Your task to perform on an android device: turn notification dots off Image 0: 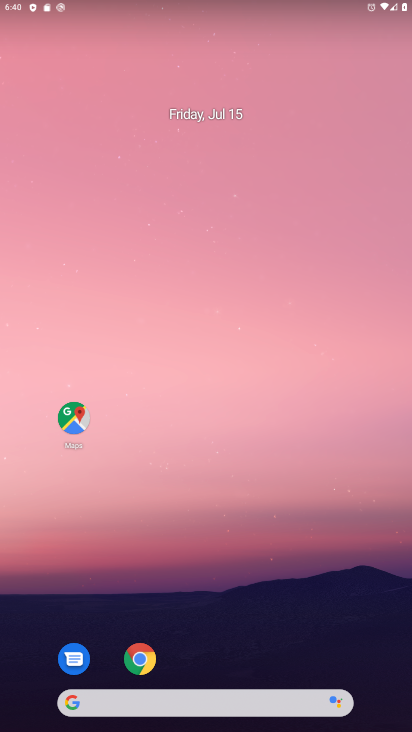
Step 0: drag from (376, 663) to (321, 102)
Your task to perform on an android device: turn notification dots off Image 1: 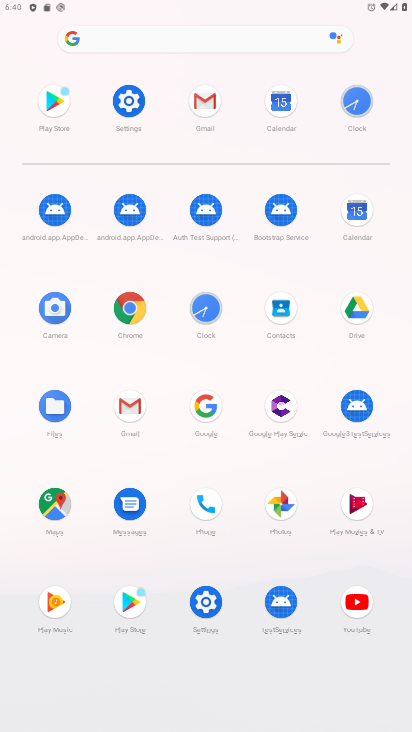
Step 1: click (206, 601)
Your task to perform on an android device: turn notification dots off Image 2: 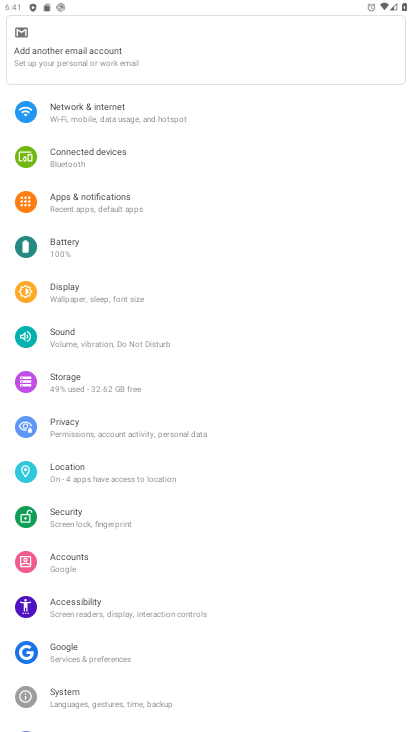
Step 2: click (86, 191)
Your task to perform on an android device: turn notification dots off Image 3: 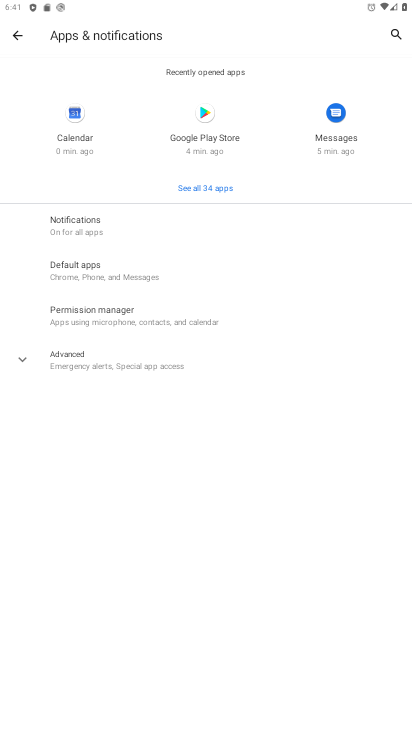
Step 3: click (73, 216)
Your task to perform on an android device: turn notification dots off Image 4: 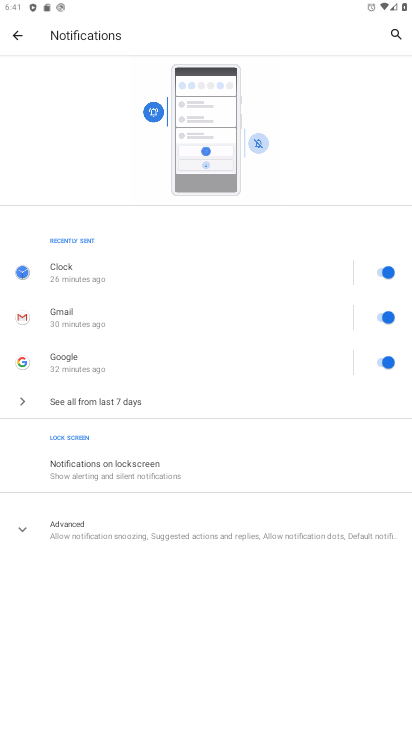
Step 4: click (37, 524)
Your task to perform on an android device: turn notification dots off Image 5: 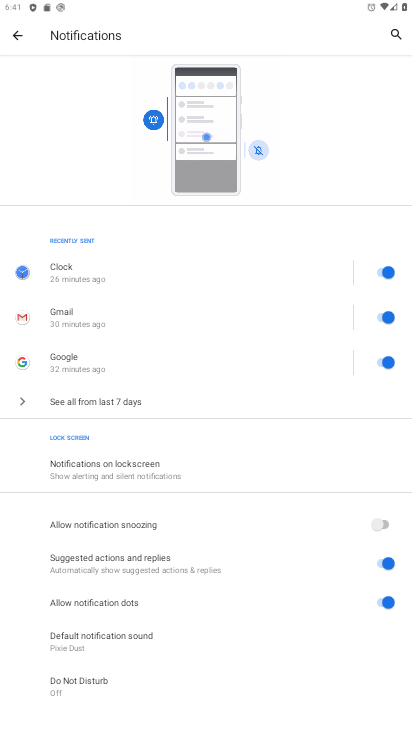
Step 5: click (373, 599)
Your task to perform on an android device: turn notification dots off Image 6: 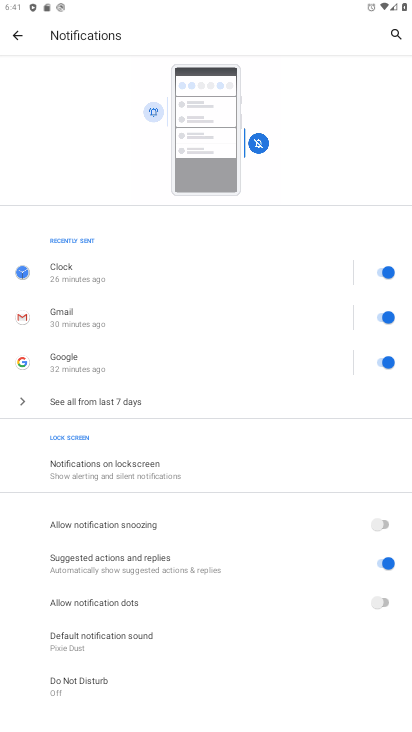
Step 6: task complete